Your task to perform on an android device: Do I have any events tomorrow? Image 0: 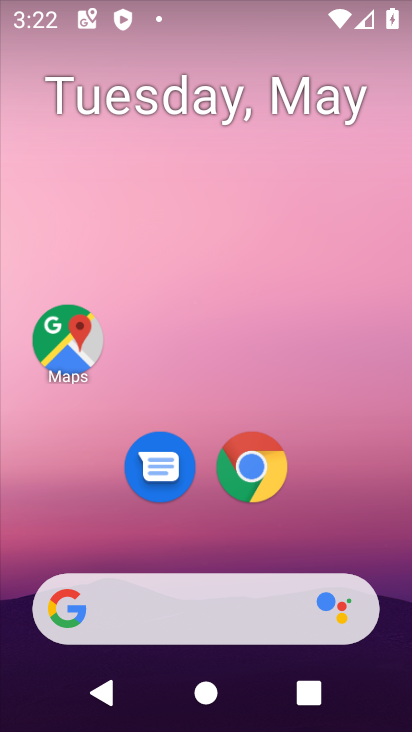
Step 0: press home button
Your task to perform on an android device: Do I have any events tomorrow? Image 1: 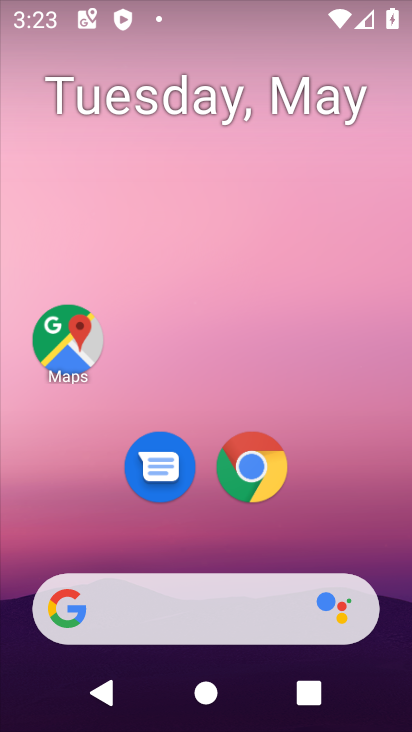
Step 1: drag from (321, 522) to (319, 102)
Your task to perform on an android device: Do I have any events tomorrow? Image 2: 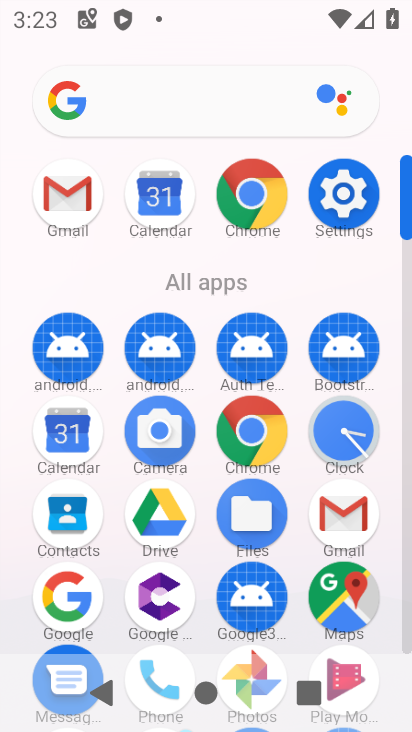
Step 2: click (166, 188)
Your task to perform on an android device: Do I have any events tomorrow? Image 3: 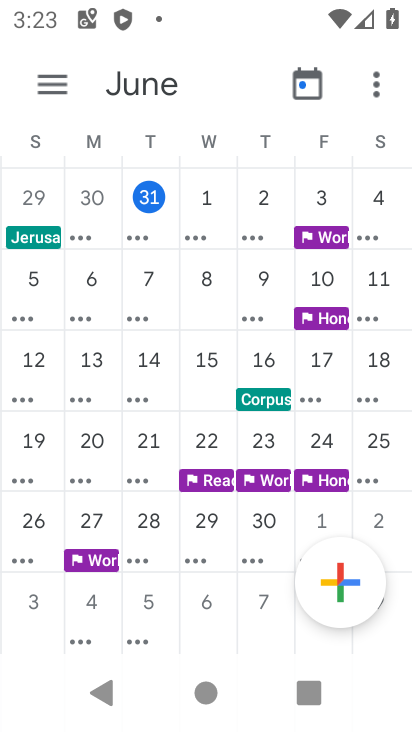
Step 3: click (51, 86)
Your task to perform on an android device: Do I have any events tomorrow? Image 4: 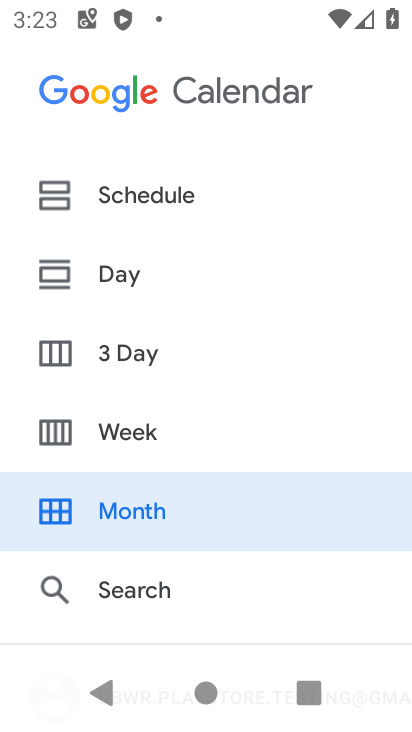
Step 4: click (158, 192)
Your task to perform on an android device: Do I have any events tomorrow? Image 5: 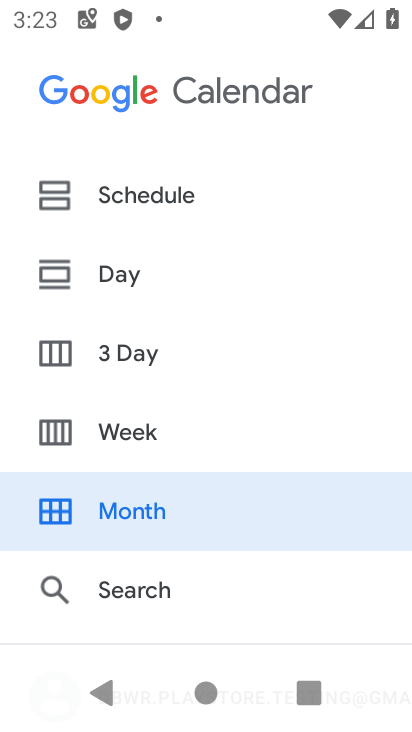
Step 5: click (123, 194)
Your task to perform on an android device: Do I have any events tomorrow? Image 6: 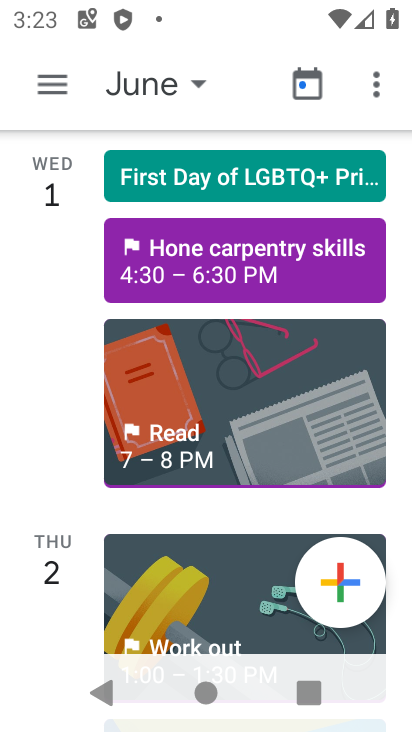
Step 6: task complete